Your task to perform on an android device: Do I have any events today? Image 0: 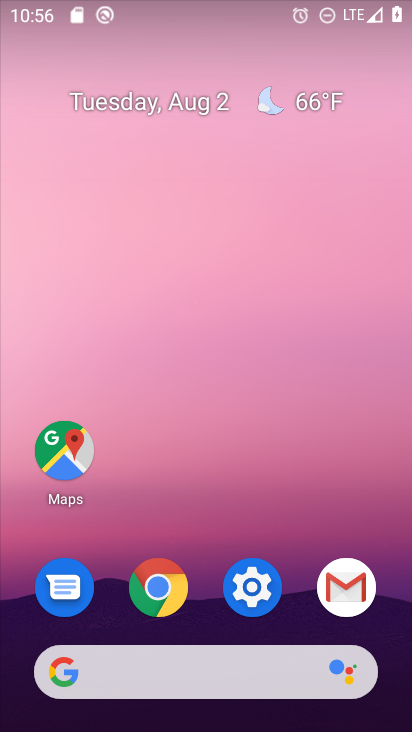
Step 0: press home button
Your task to perform on an android device: Do I have any events today? Image 1: 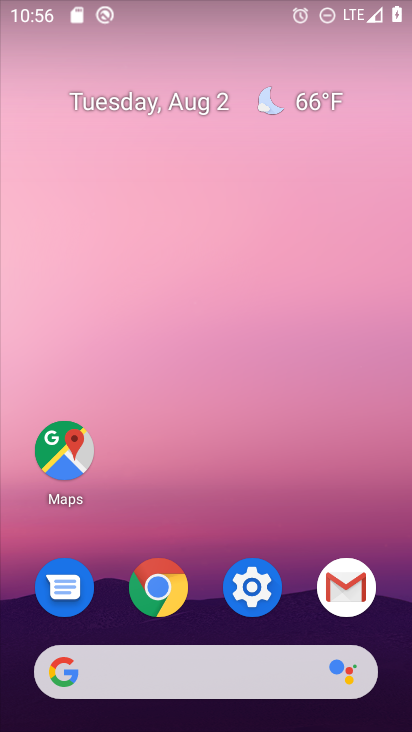
Step 1: drag from (284, 702) to (264, 225)
Your task to perform on an android device: Do I have any events today? Image 2: 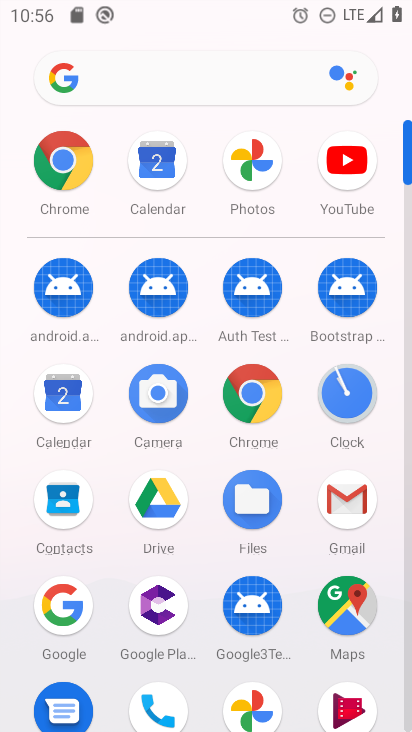
Step 2: click (68, 396)
Your task to perform on an android device: Do I have any events today? Image 3: 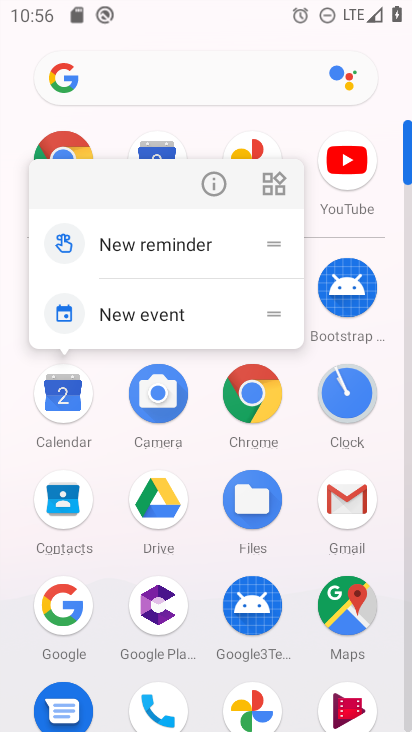
Step 3: click (58, 495)
Your task to perform on an android device: Do I have any events today? Image 4: 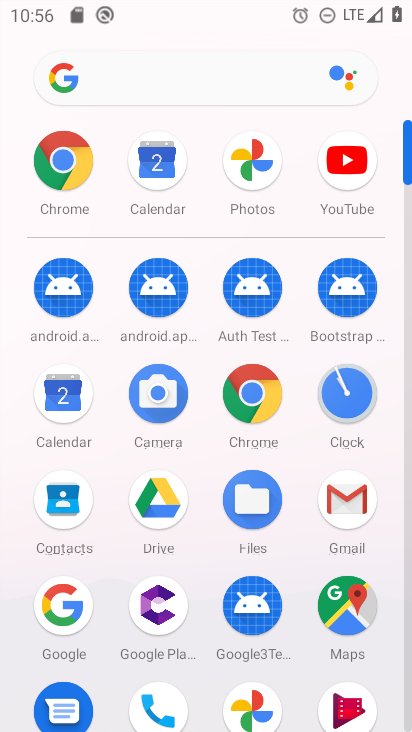
Step 4: click (71, 405)
Your task to perform on an android device: Do I have any events today? Image 5: 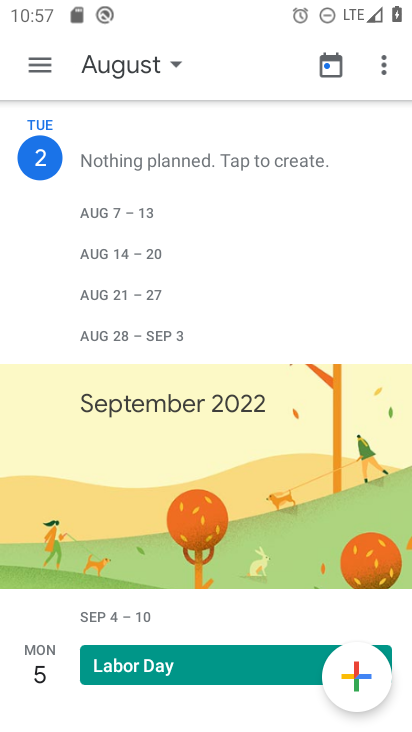
Step 5: click (47, 162)
Your task to perform on an android device: Do I have any events today? Image 6: 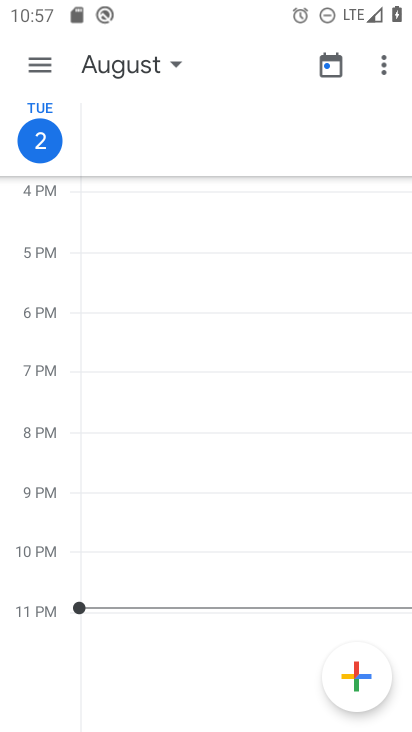
Step 6: click (53, 151)
Your task to perform on an android device: Do I have any events today? Image 7: 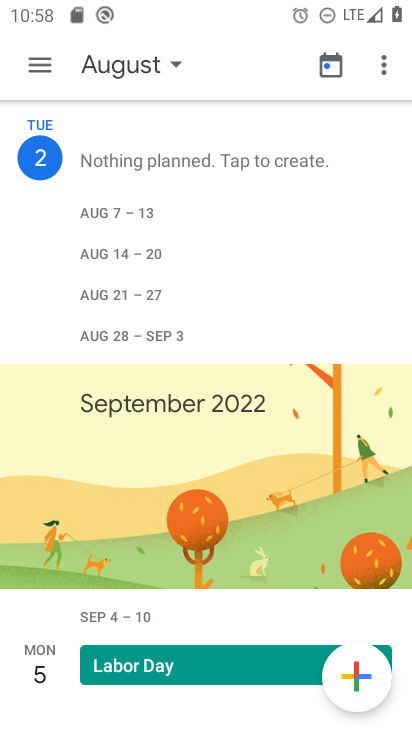
Step 7: task complete